Your task to perform on an android device: Clear all items from cart on costco. Add corsair k70 to the cart on costco, then select checkout. Image 0: 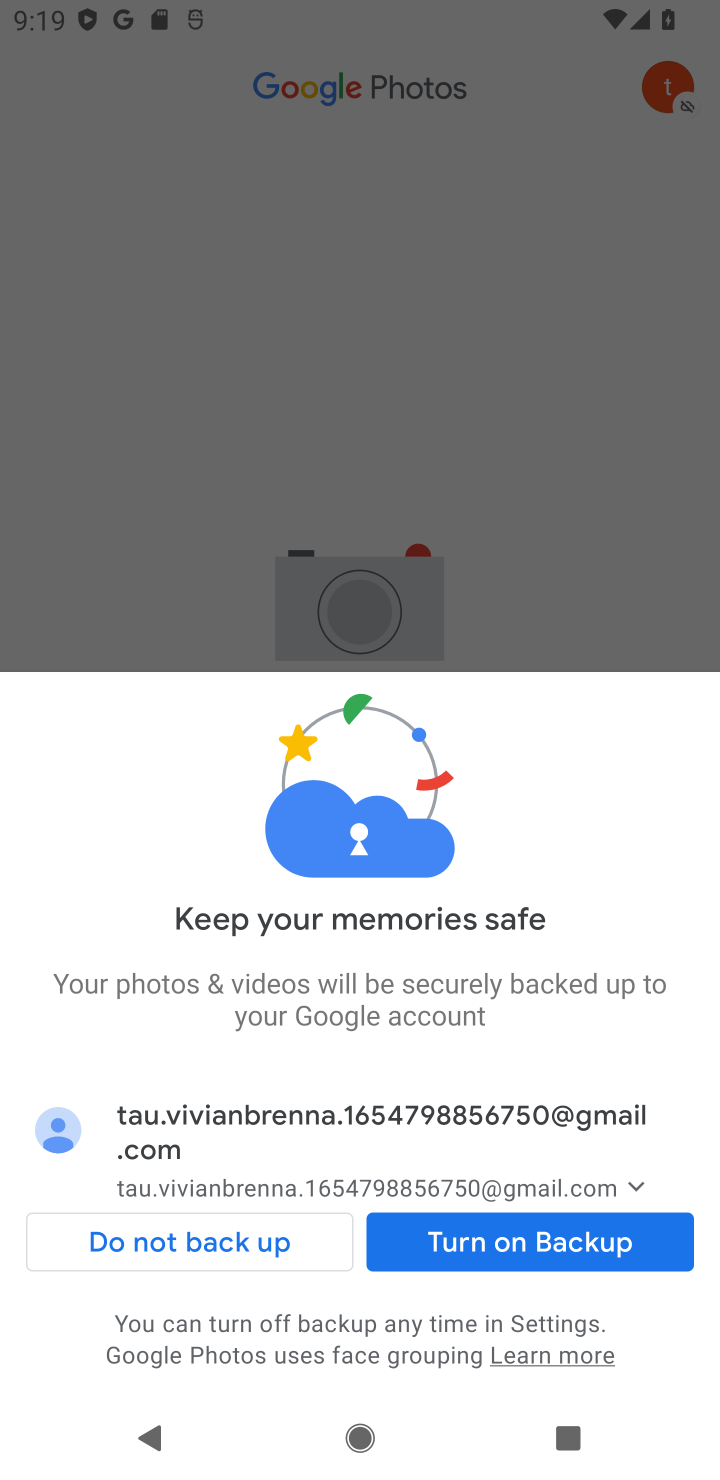
Step 0: press home button
Your task to perform on an android device: Clear all items from cart on costco. Add corsair k70 to the cart on costco, then select checkout. Image 1: 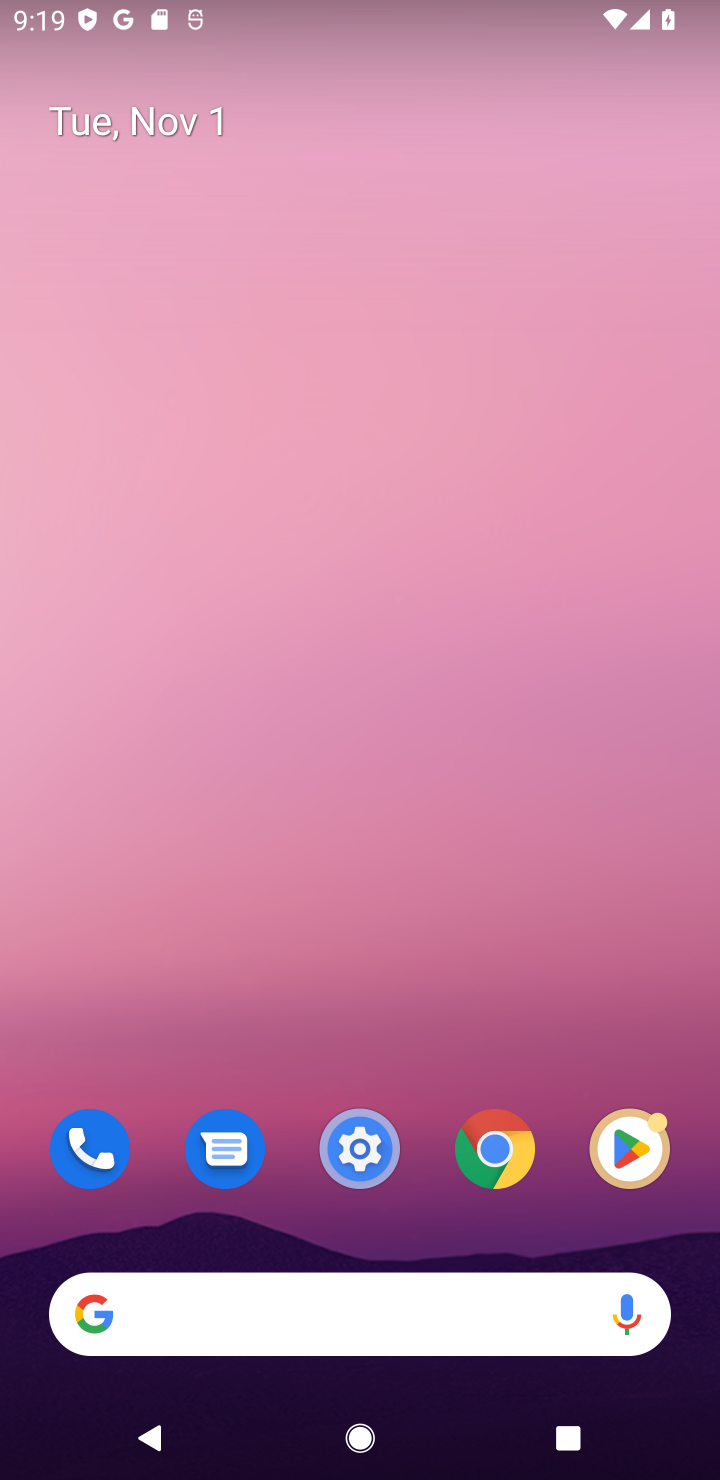
Step 1: click (148, 1309)
Your task to perform on an android device: Clear all items from cart on costco. Add corsair k70 to the cart on costco, then select checkout. Image 2: 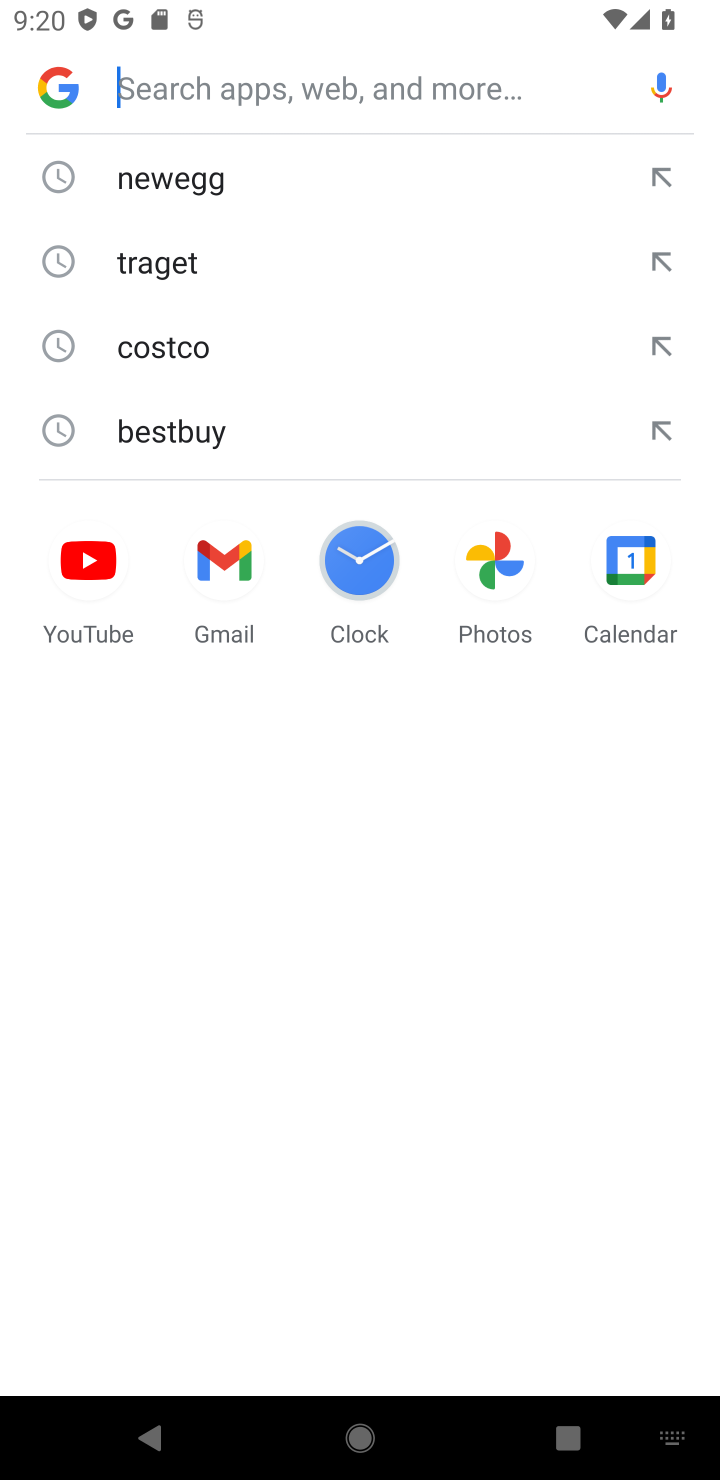
Step 2: type "costco"
Your task to perform on an android device: Clear all items from cart on costco. Add corsair k70 to the cart on costco, then select checkout. Image 3: 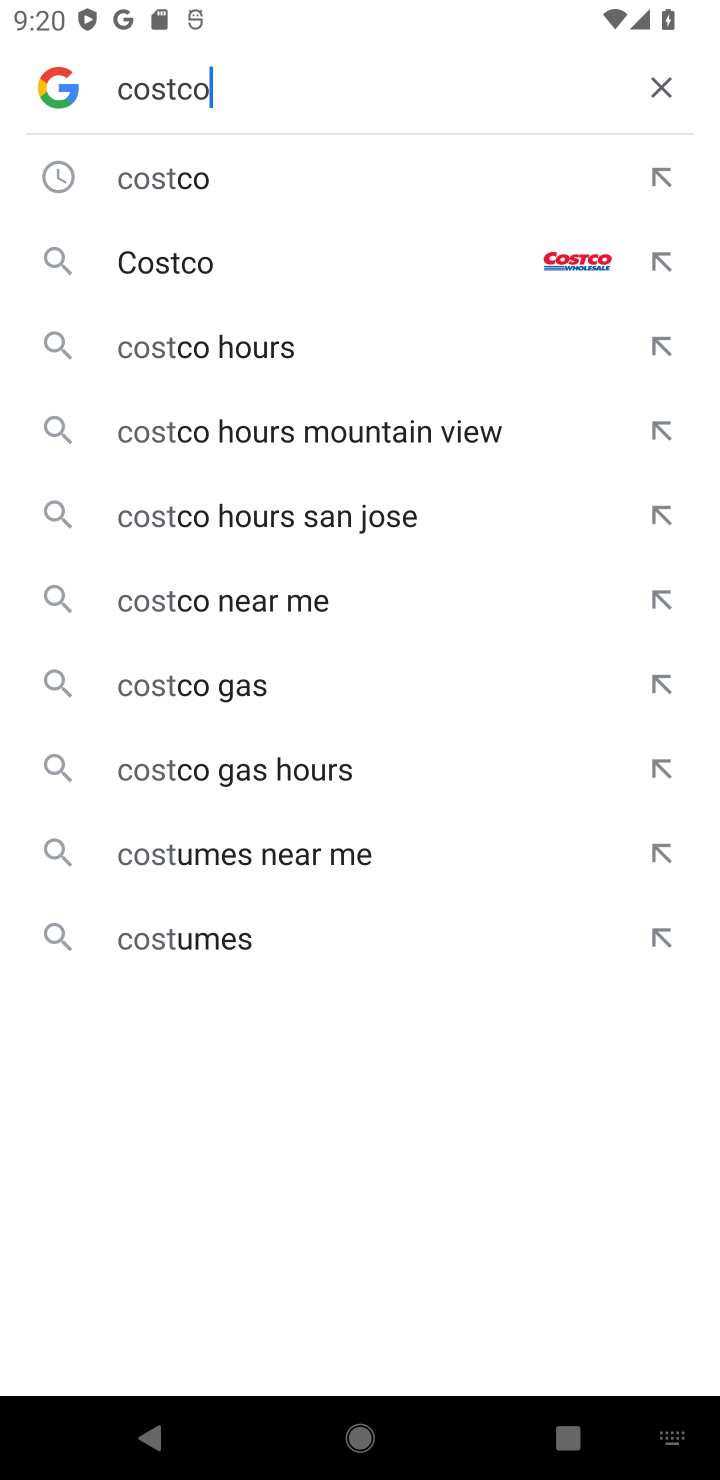
Step 3: press enter
Your task to perform on an android device: Clear all items from cart on costco. Add corsair k70 to the cart on costco, then select checkout. Image 4: 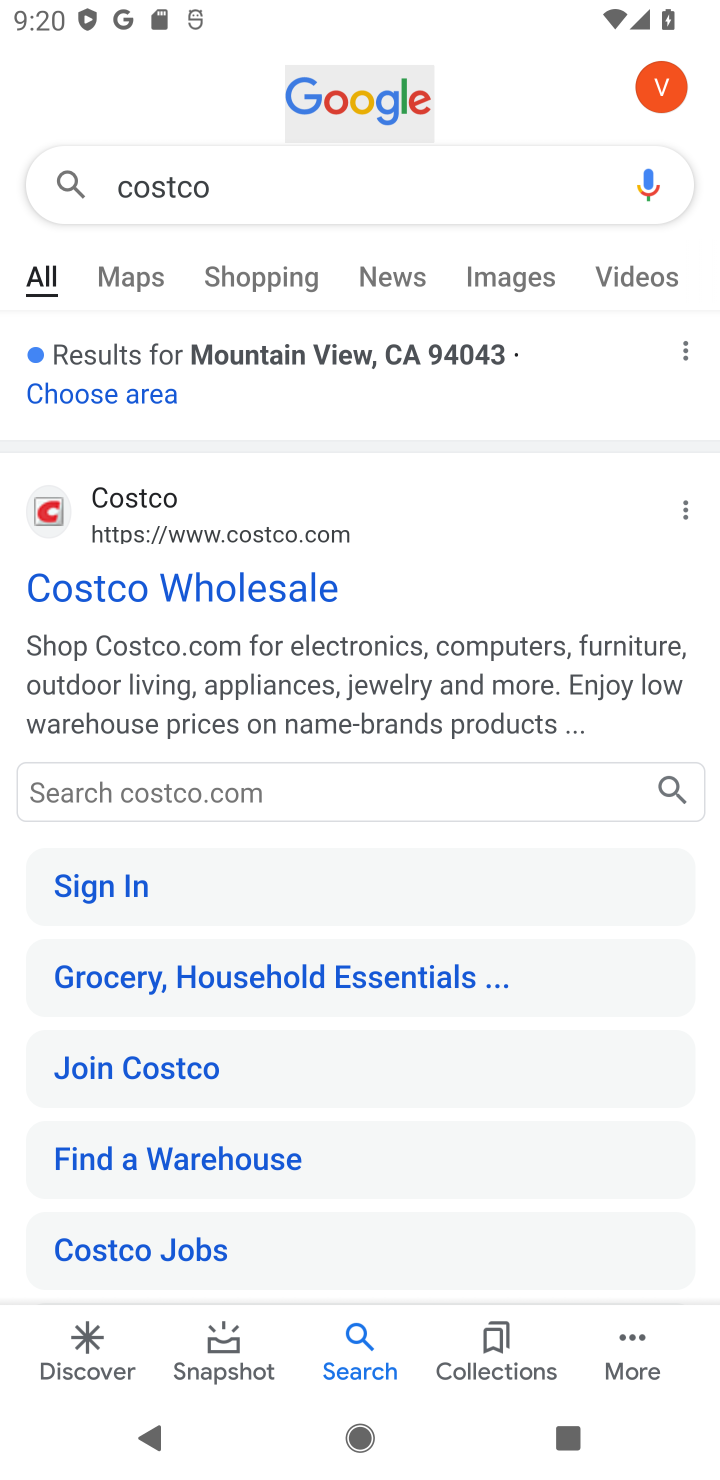
Step 4: click (268, 579)
Your task to perform on an android device: Clear all items from cart on costco. Add corsair k70 to the cart on costco, then select checkout. Image 5: 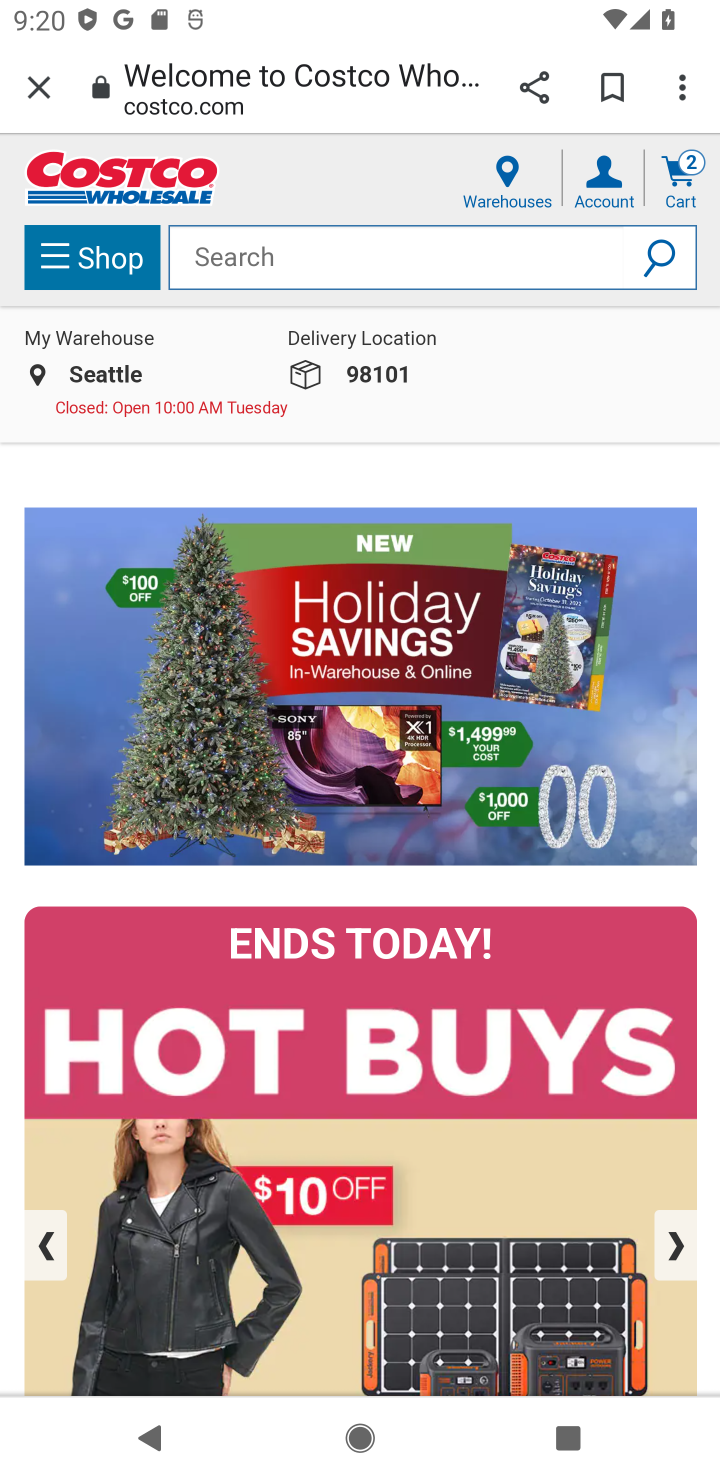
Step 5: click (287, 249)
Your task to perform on an android device: Clear all items from cart on costco. Add corsair k70 to the cart on costco, then select checkout. Image 6: 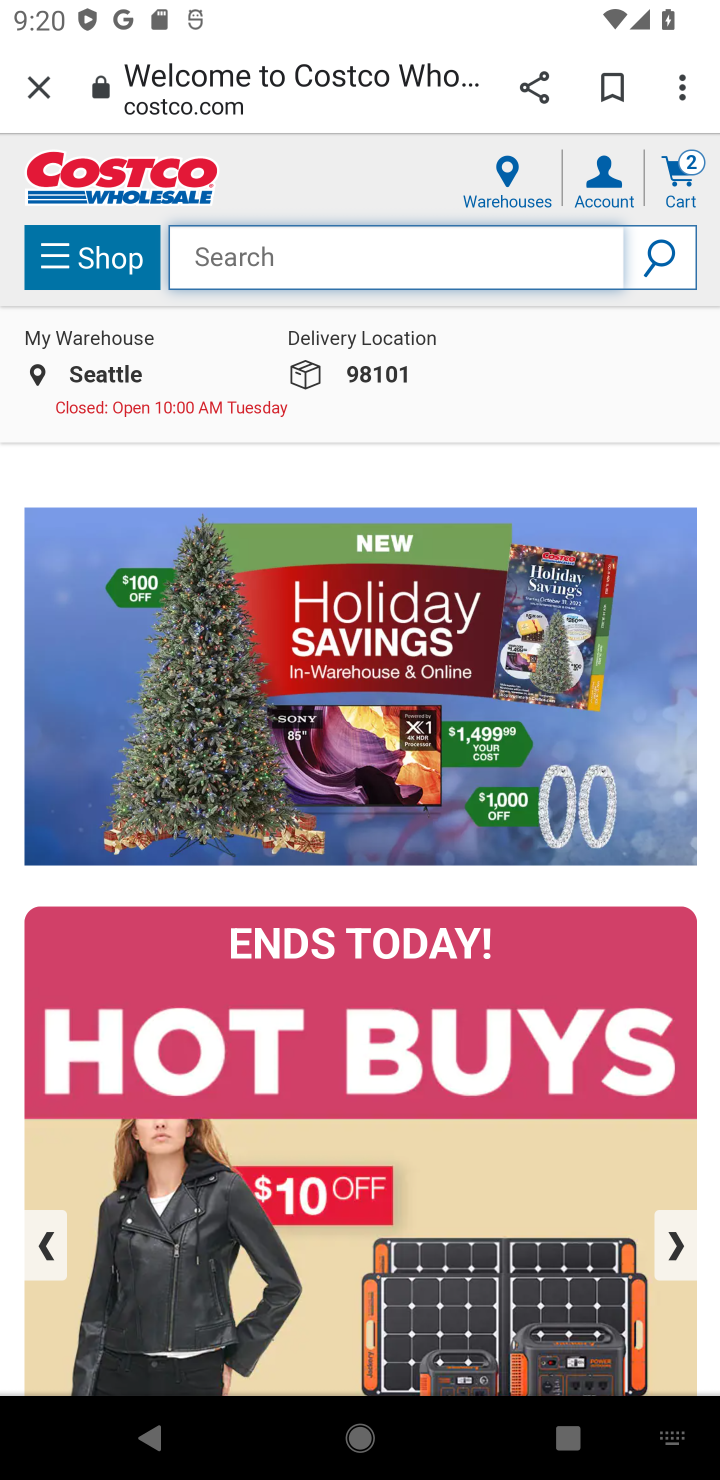
Step 6: click (677, 173)
Your task to perform on an android device: Clear all items from cart on costco. Add corsair k70 to the cart on costco, then select checkout. Image 7: 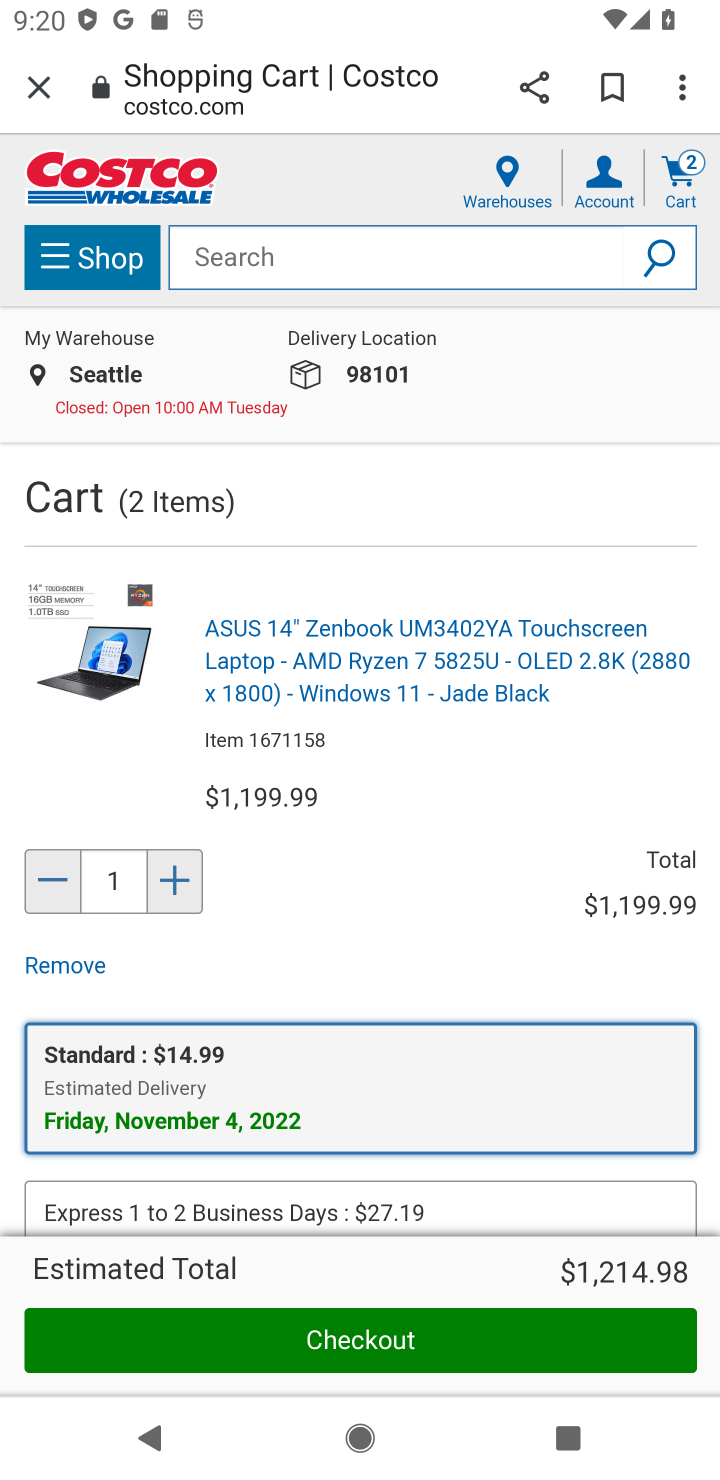
Step 7: click (50, 965)
Your task to perform on an android device: Clear all items from cart on costco. Add corsair k70 to the cart on costco, then select checkout. Image 8: 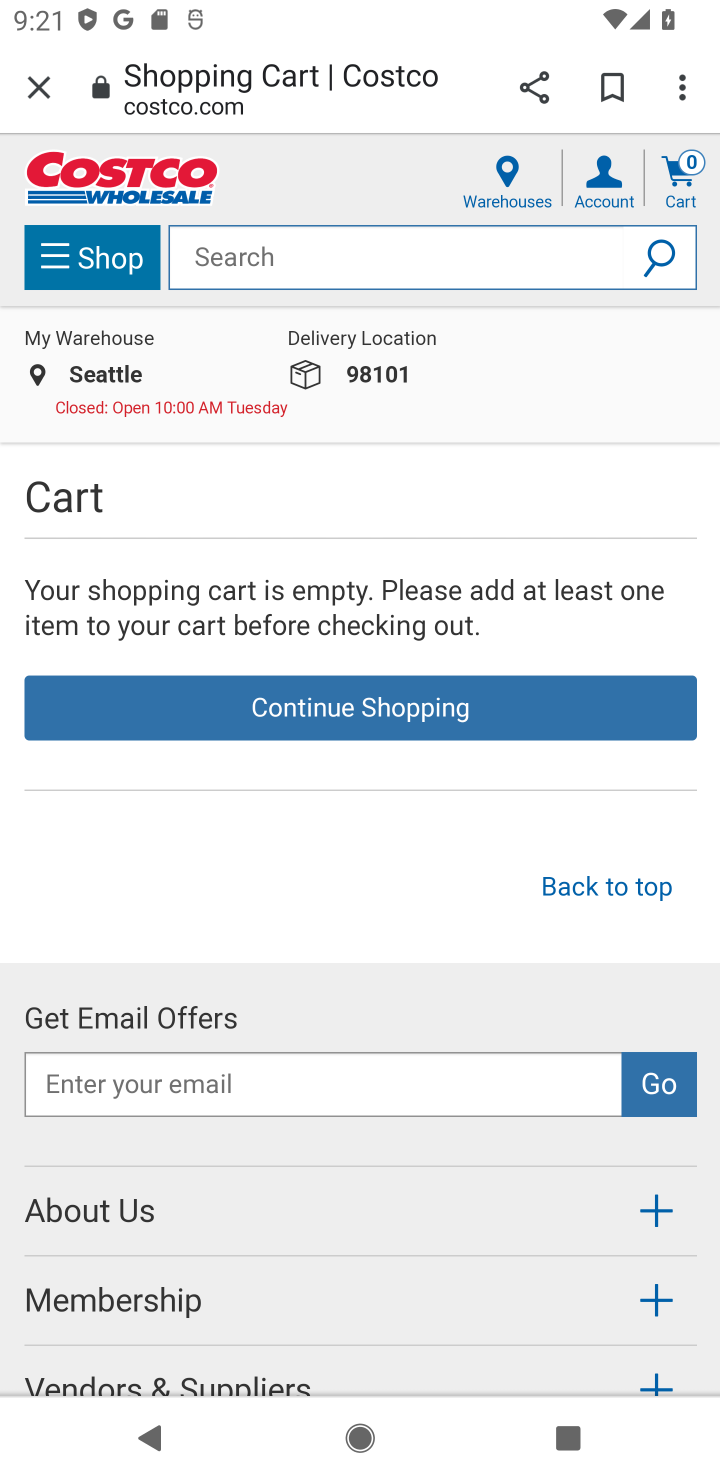
Step 8: click (248, 257)
Your task to perform on an android device: Clear all items from cart on costco. Add corsair k70 to the cart on costco, then select checkout. Image 9: 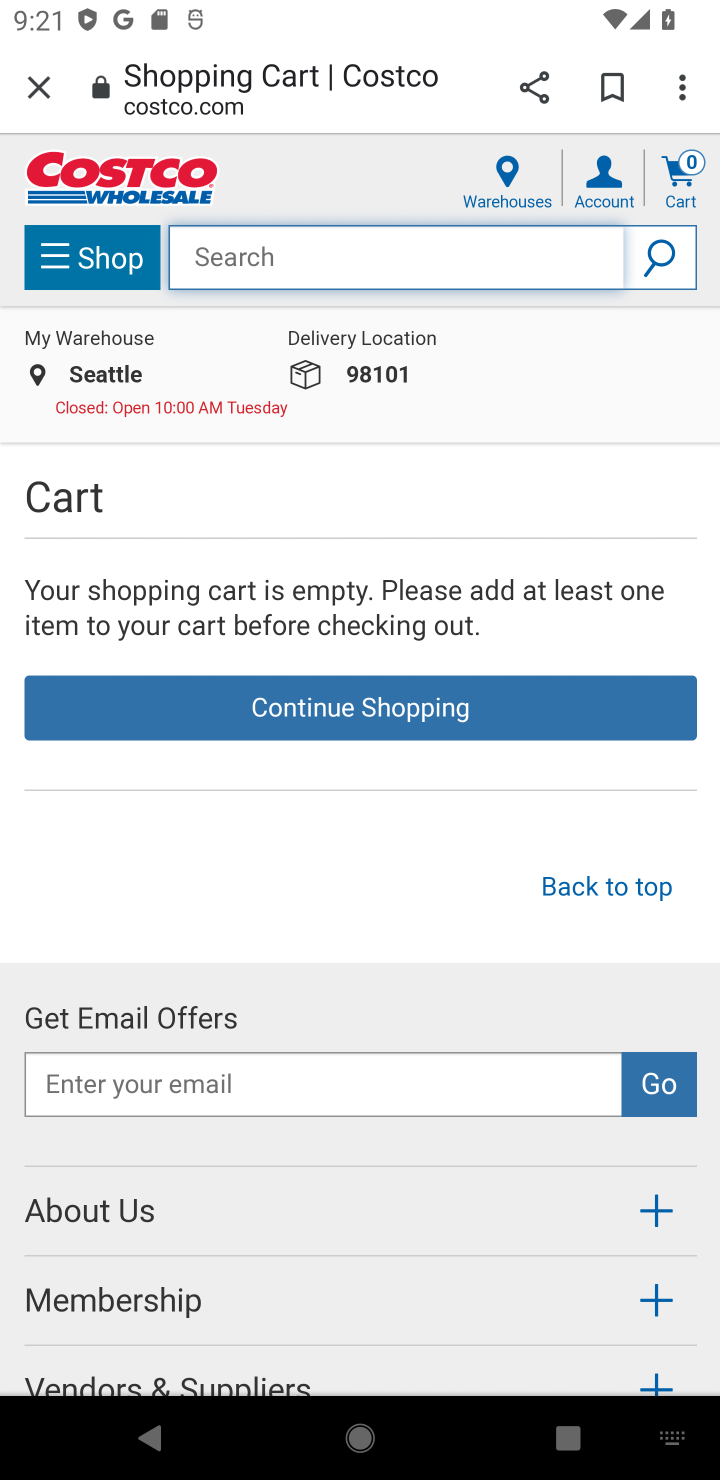
Step 9: press enter
Your task to perform on an android device: Clear all items from cart on costco. Add corsair k70 to the cart on costco, then select checkout. Image 10: 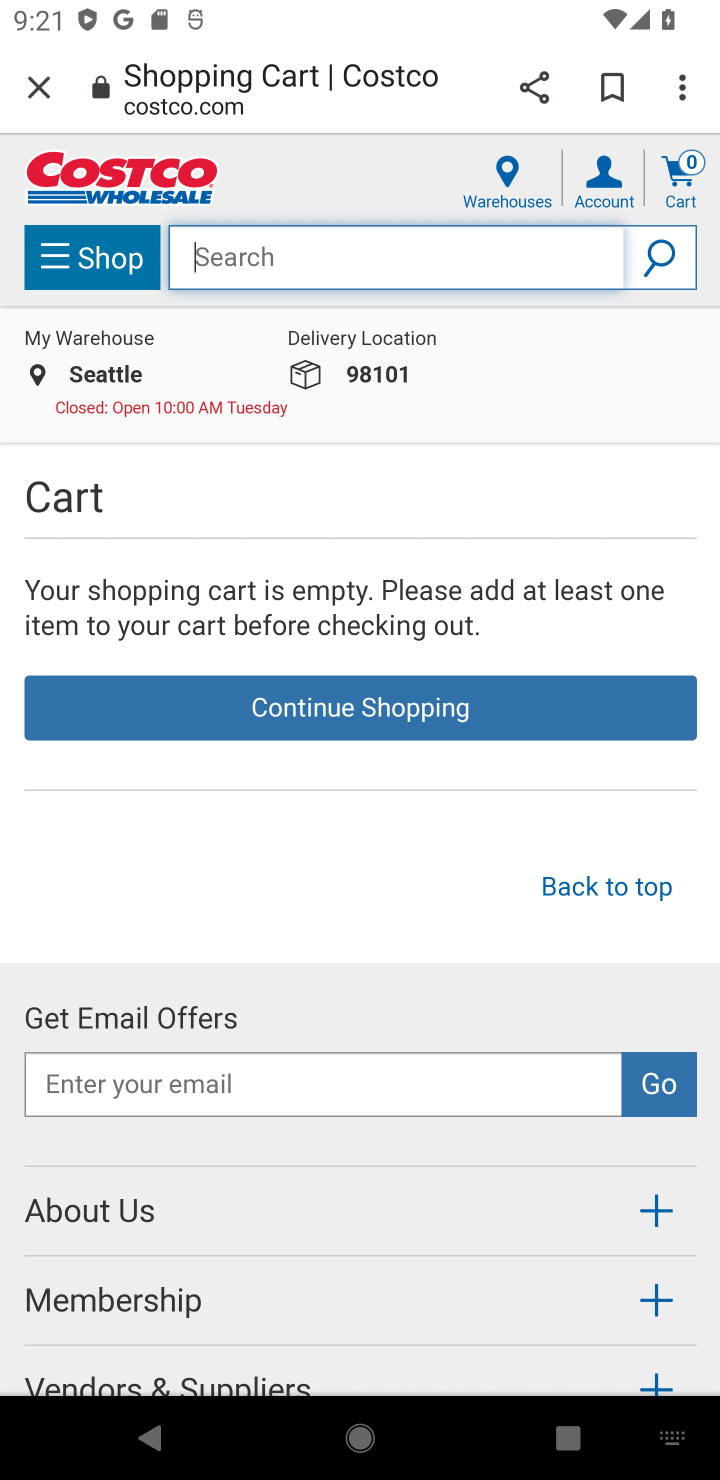
Step 10: type "corsair k70"
Your task to perform on an android device: Clear all items from cart on costco. Add corsair k70 to the cart on costco, then select checkout. Image 11: 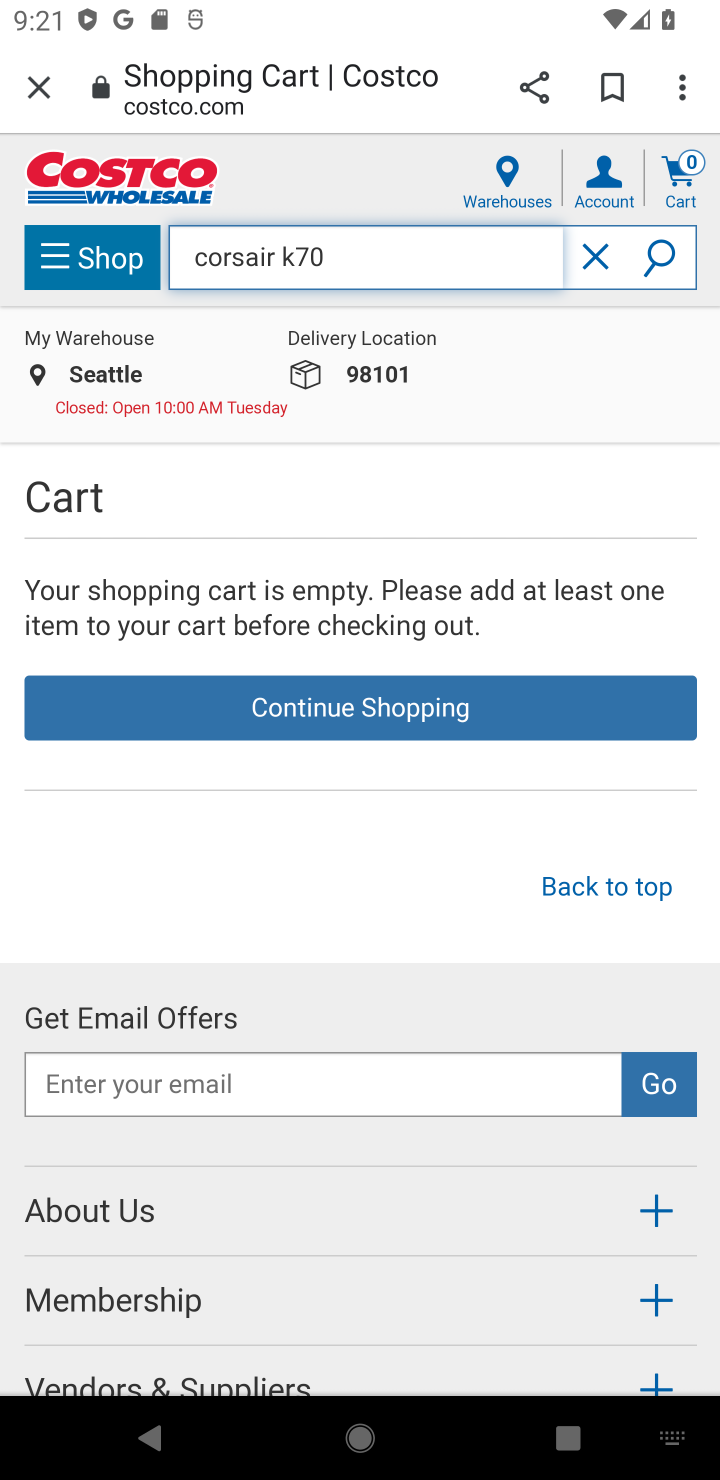
Step 11: click (658, 248)
Your task to perform on an android device: Clear all items from cart on costco. Add corsair k70 to the cart on costco, then select checkout. Image 12: 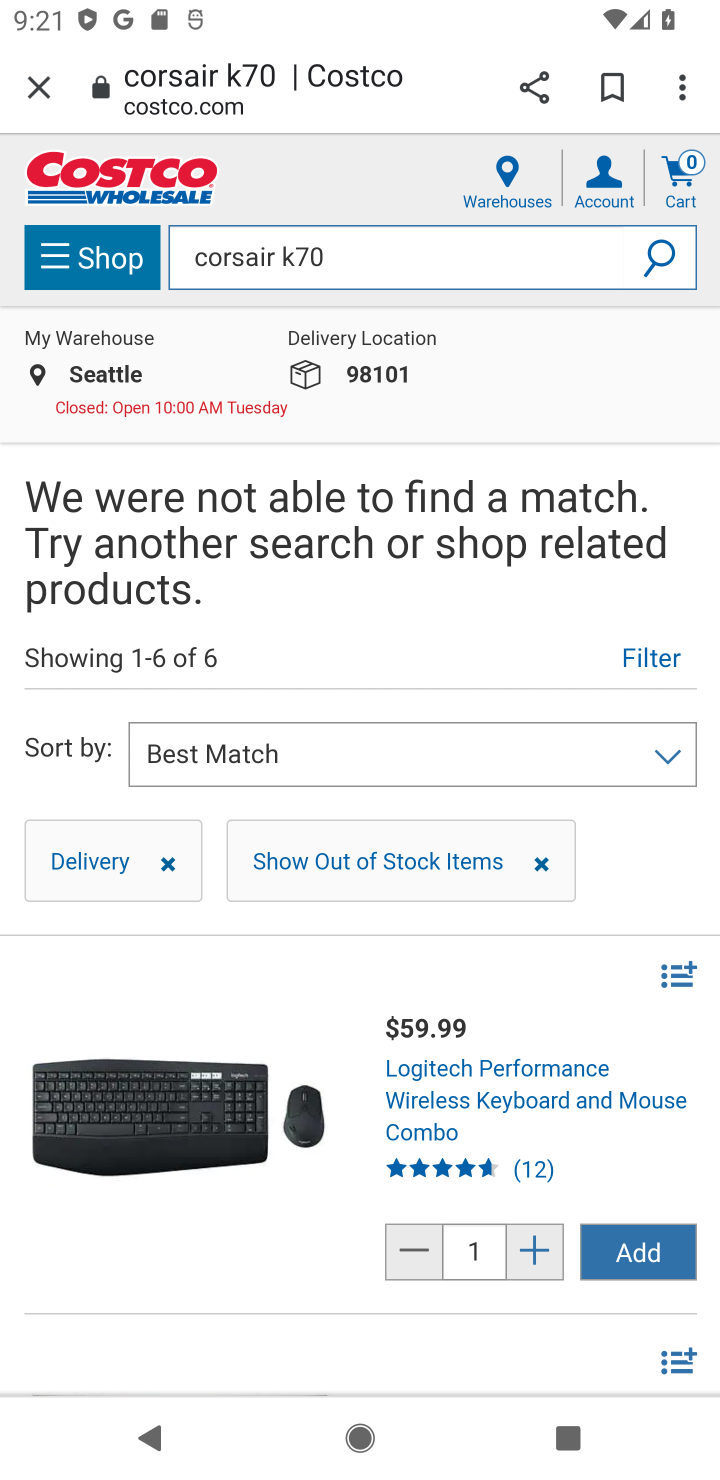
Step 12: task complete